Your task to perform on an android device: Open the stopwatch Image 0: 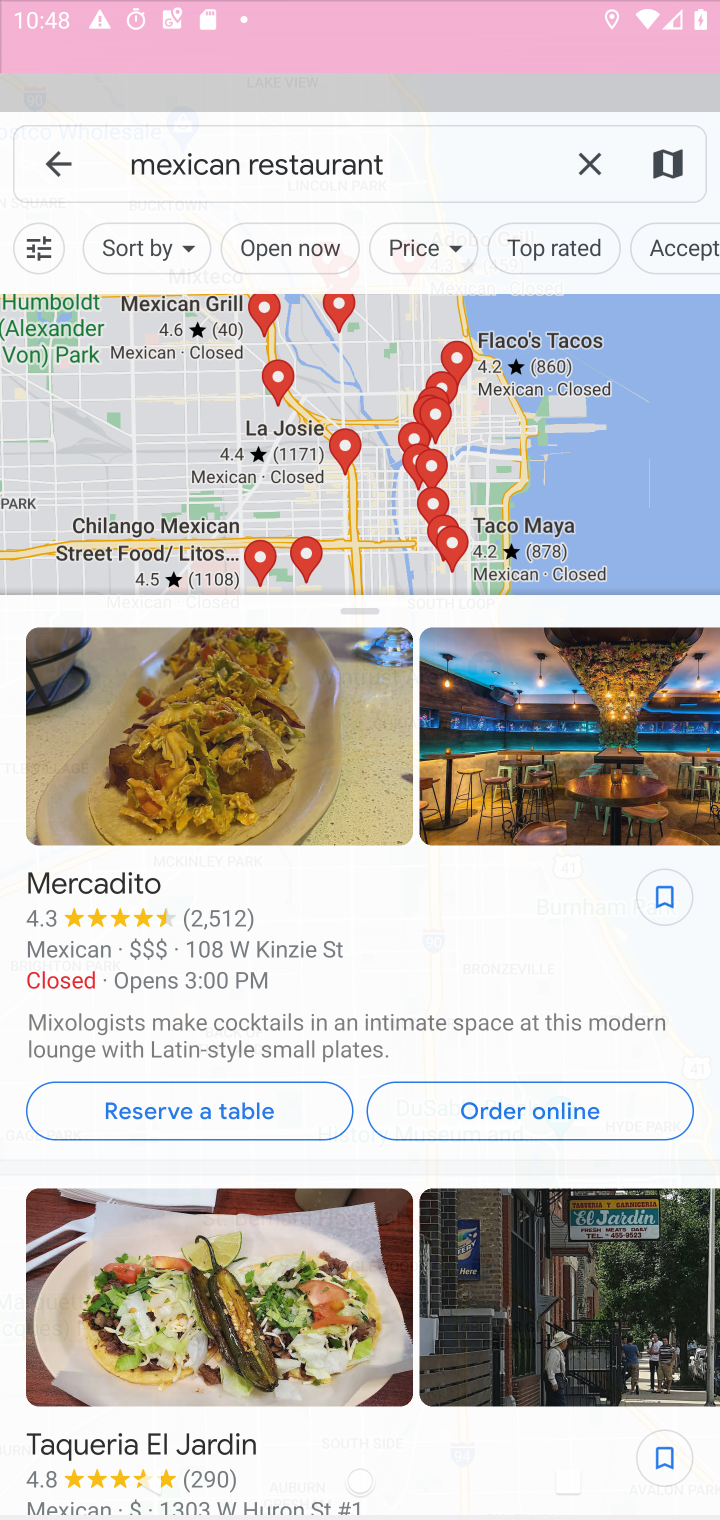
Step 0: press home button
Your task to perform on an android device: Open the stopwatch Image 1: 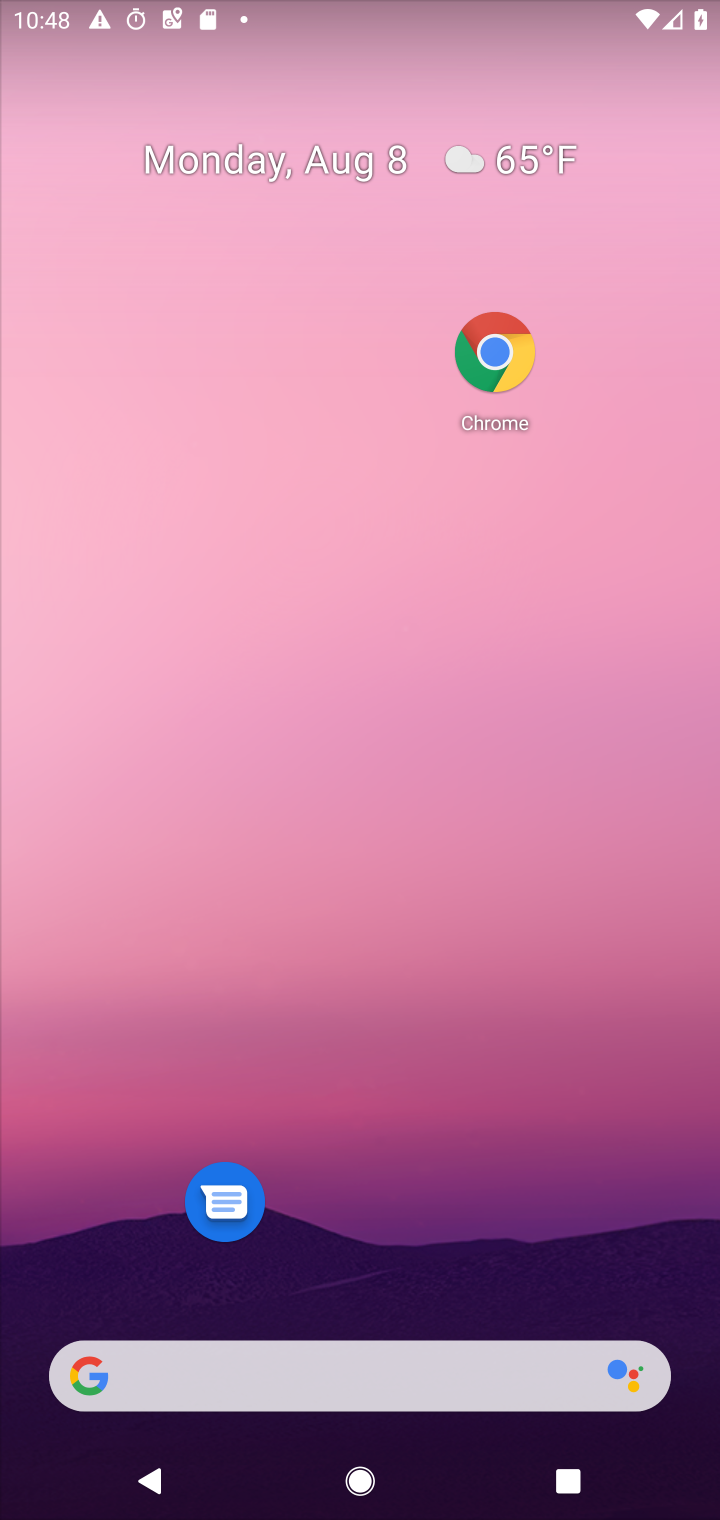
Step 1: drag from (401, 1367) to (367, 248)
Your task to perform on an android device: Open the stopwatch Image 2: 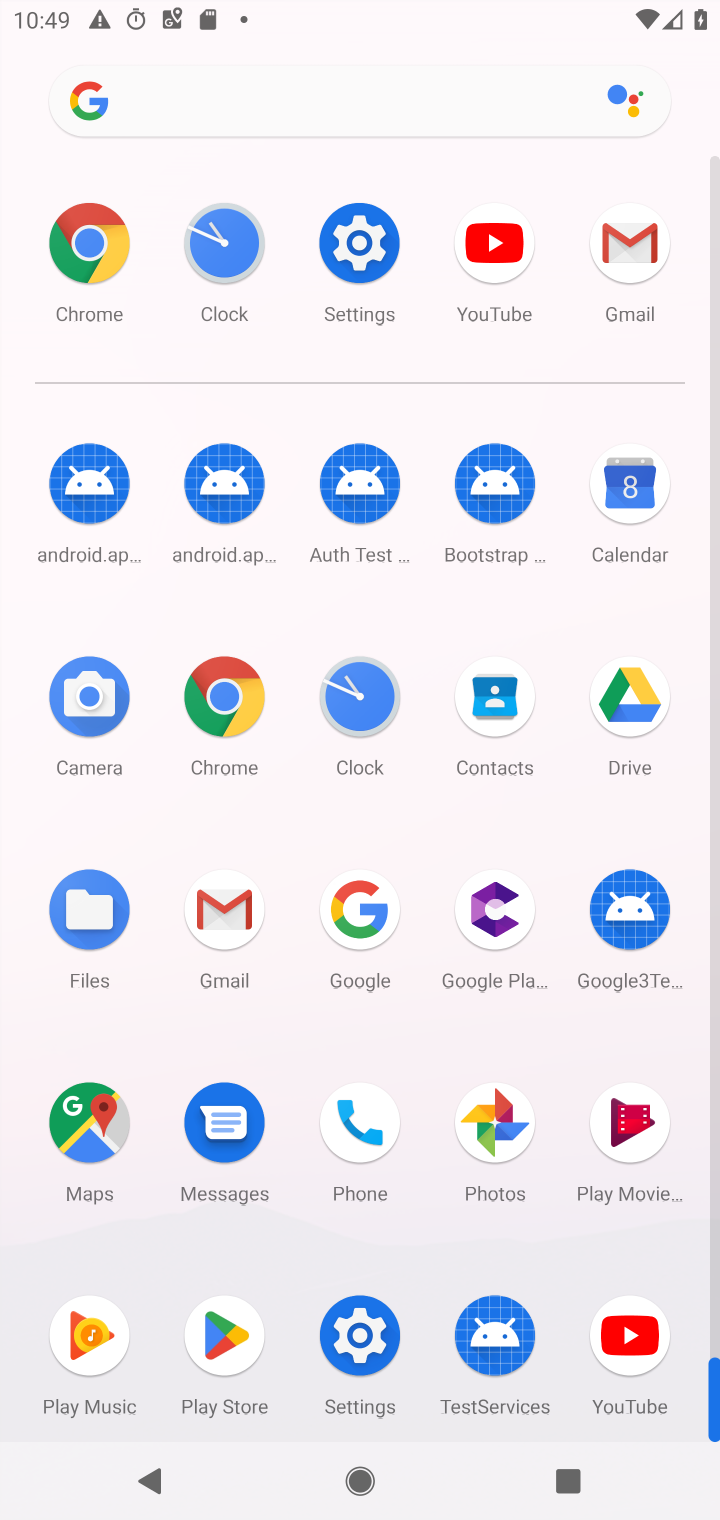
Step 2: click (384, 708)
Your task to perform on an android device: Open the stopwatch Image 3: 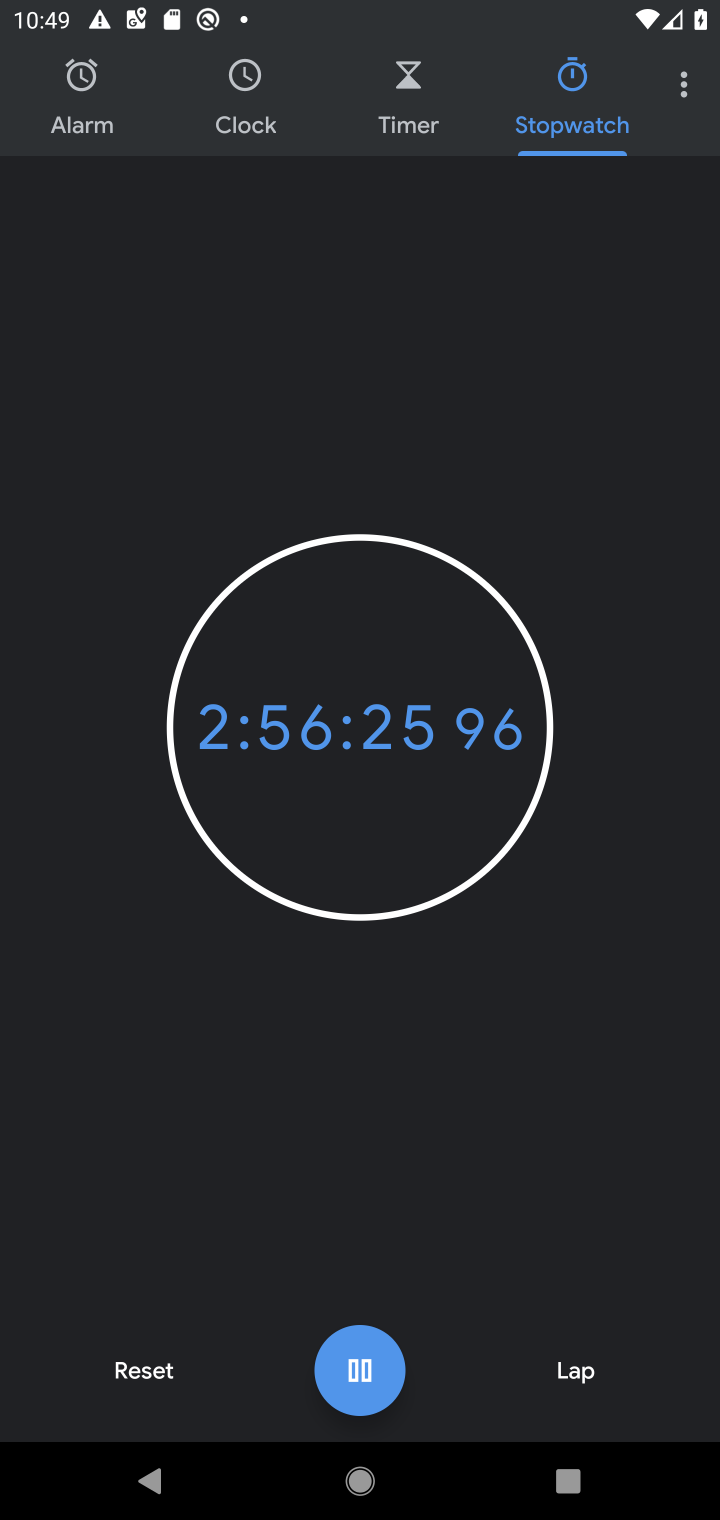
Step 3: task complete